Your task to perform on an android device: Open settings on Google Maps Image 0: 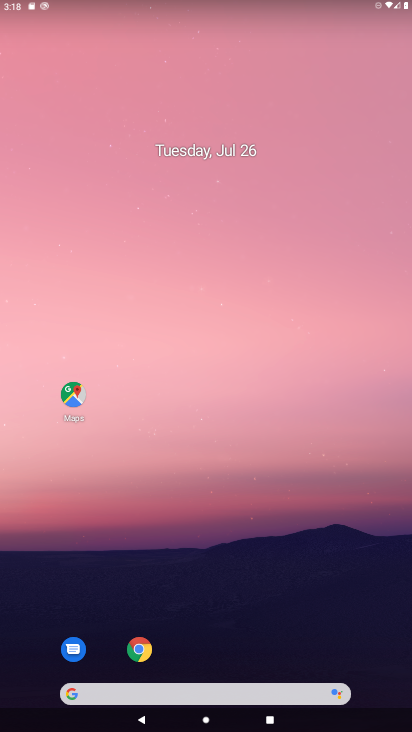
Step 0: click (72, 403)
Your task to perform on an android device: Open settings on Google Maps Image 1: 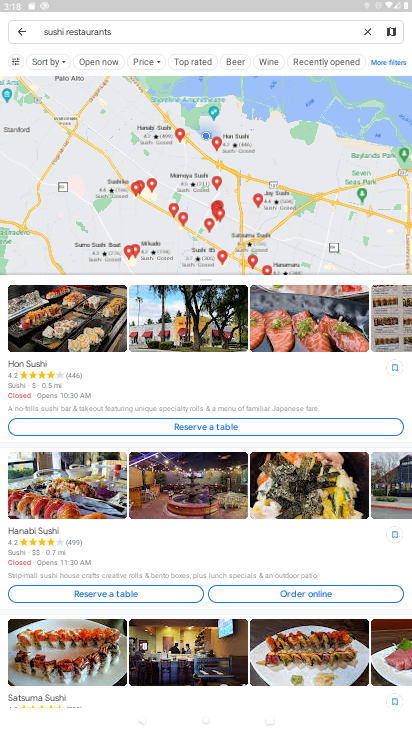
Step 1: click (22, 32)
Your task to perform on an android device: Open settings on Google Maps Image 2: 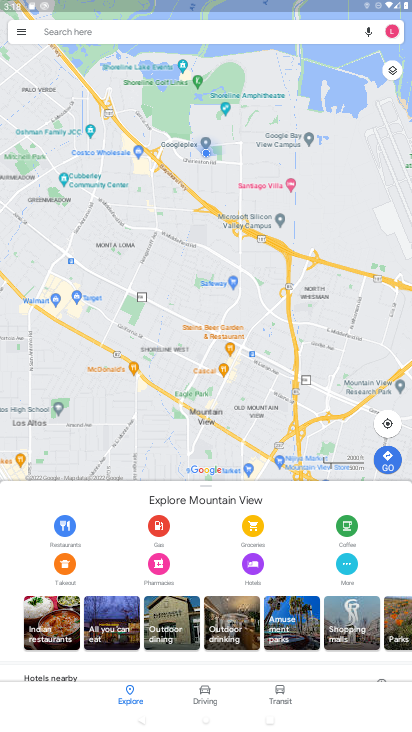
Step 2: click (21, 32)
Your task to perform on an android device: Open settings on Google Maps Image 3: 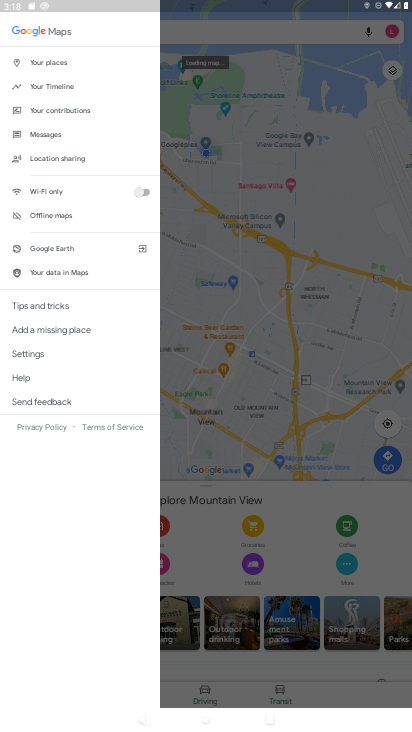
Step 3: click (45, 354)
Your task to perform on an android device: Open settings on Google Maps Image 4: 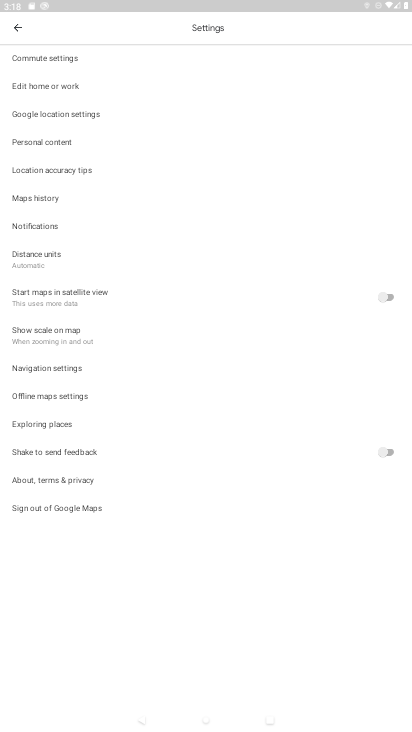
Step 4: task complete